Your task to perform on an android device: snooze an email in the gmail app Image 0: 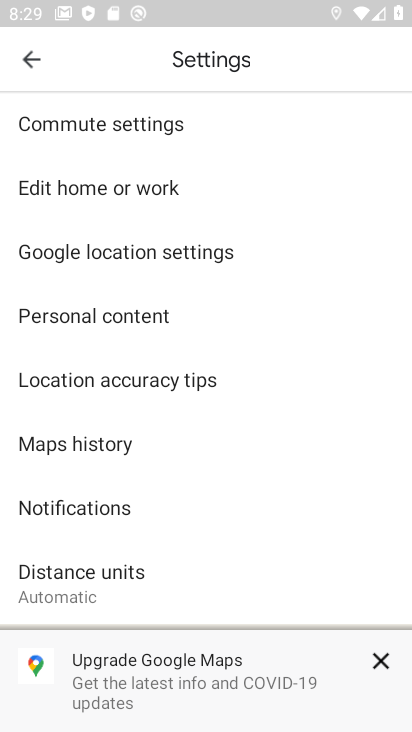
Step 0: press home button
Your task to perform on an android device: snooze an email in the gmail app Image 1: 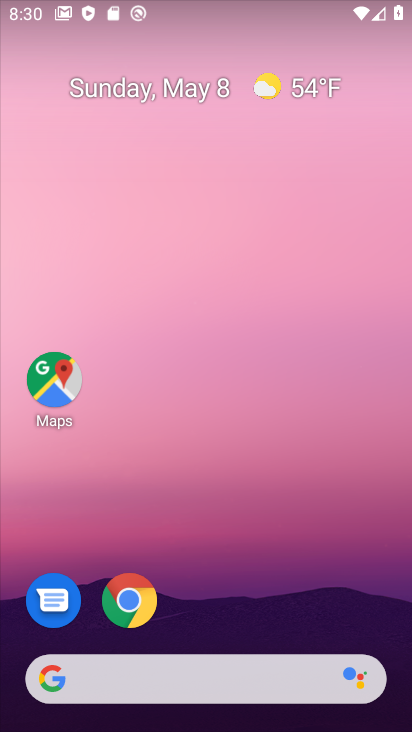
Step 1: drag from (221, 628) to (322, 41)
Your task to perform on an android device: snooze an email in the gmail app Image 2: 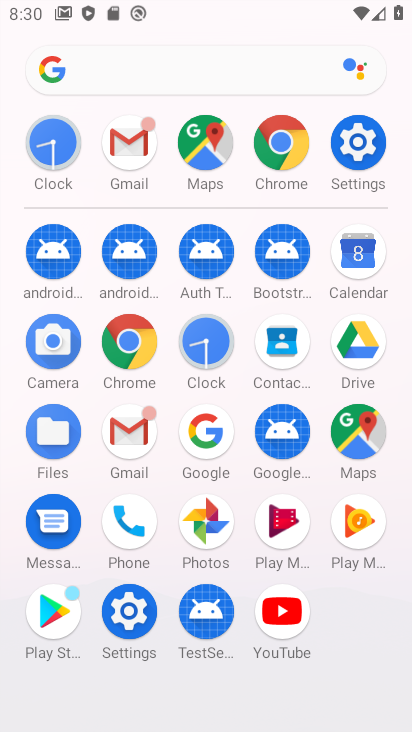
Step 2: click (120, 161)
Your task to perform on an android device: snooze an email in the gmail app Image 3: 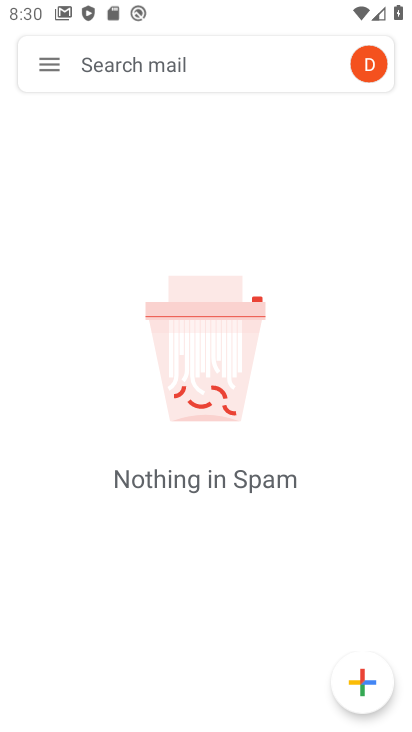
Step 3: click (56, 79)
Your task to perform on an android device: snooze an email in the gmail app Image 4: 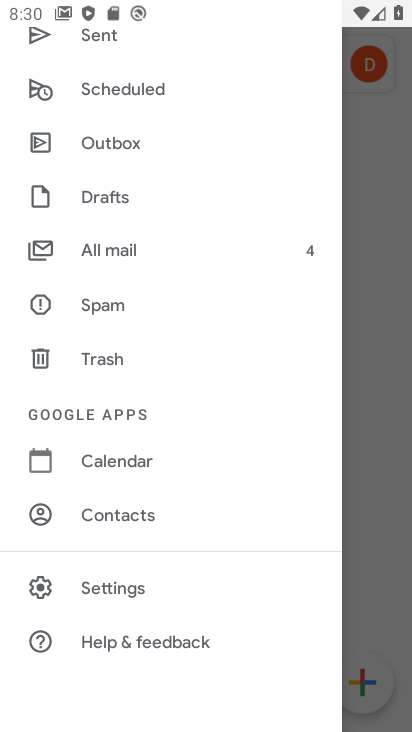
Step 4: click (131, 254)
Your task to perform on an android device: snooze an email in the gmail app Image 5: 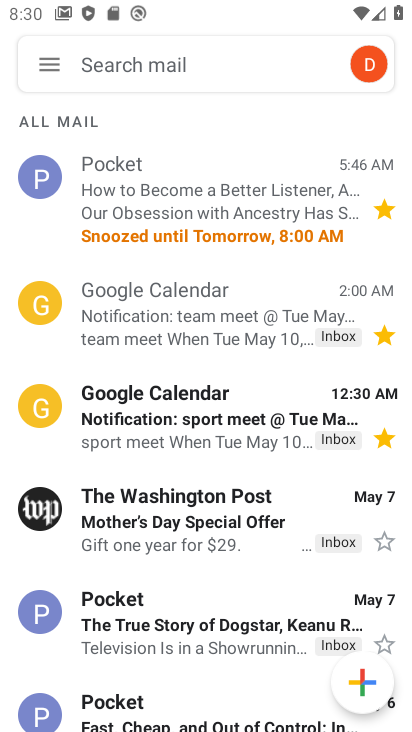
Step 5: click (50, 188)
Your task to perform on an android device: snooze an email in the gmail app Image 6: 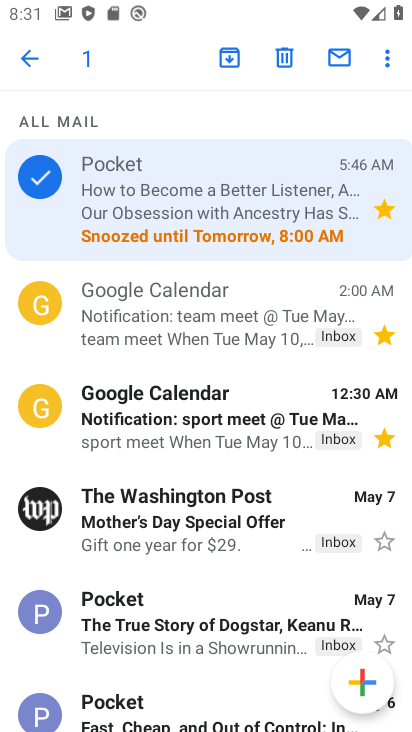
Step 6: click (396, 55)
Your task to perform on an android device: snooze an email in the gmail app Image 7: 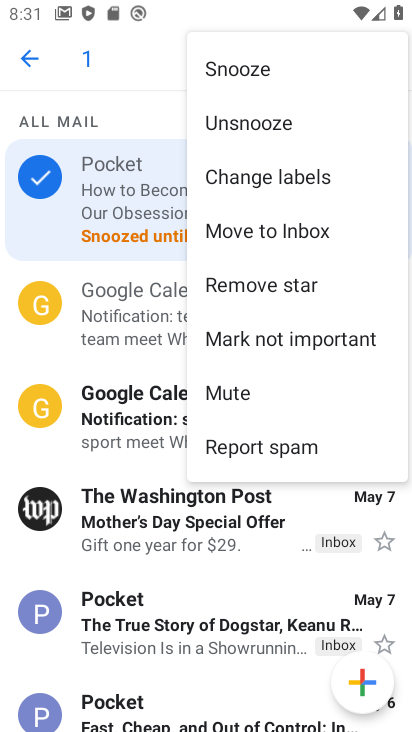
Step 7: click (261, 87)
Your task to perform on an android device: snooze an email in the gmail app Image 8: 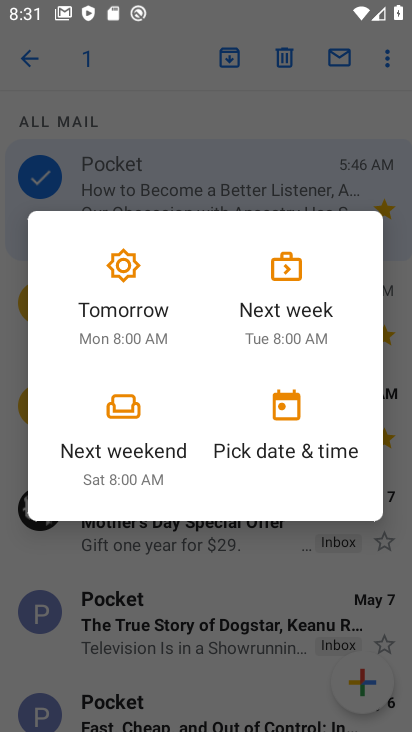
Step 8: click (166, 482)
Your task to perform on an android device: snooze an email in the gmail app Image 9: 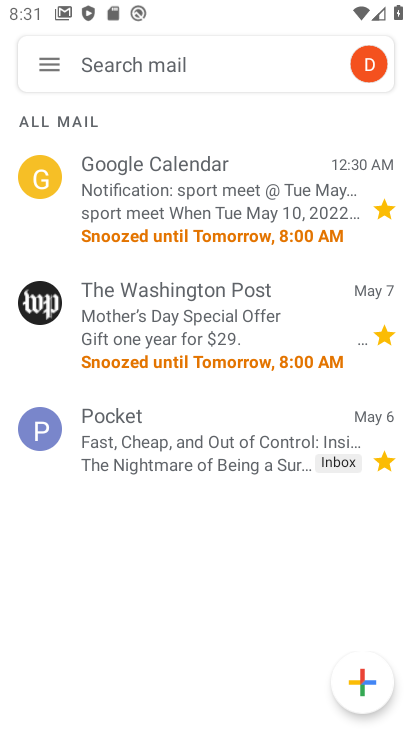
Step 9: task complete